Your task to perform on an android device: turn on translation in the chrome app Image 0: 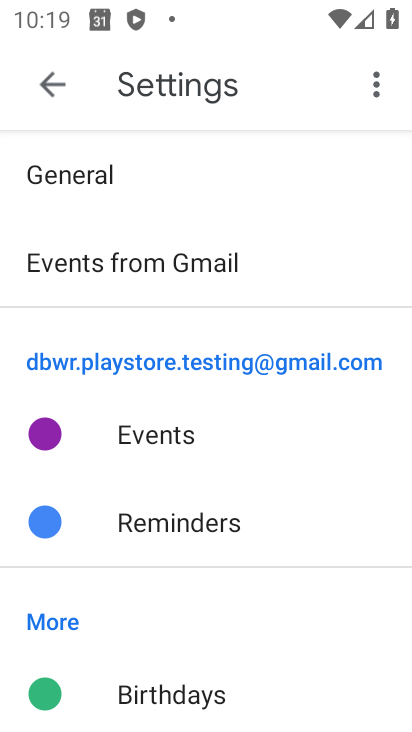
Step 0: press home button
Your task to perform on an android device: turn on translation in the chrome app Image 1: 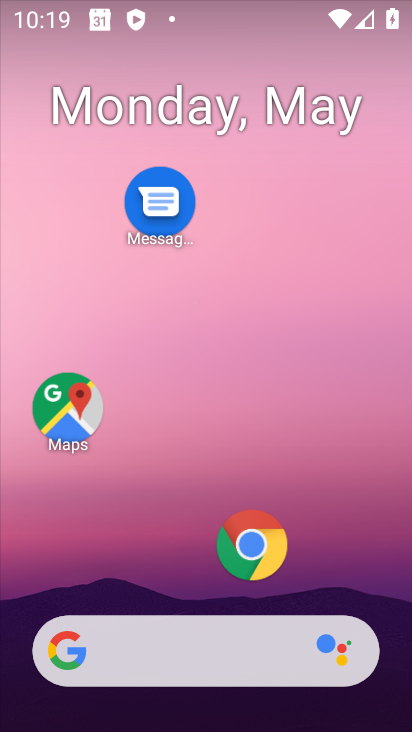
Step 1: click (238, 549)
Your task to perform on an android device: turn on translation in the chrome app Image 2: 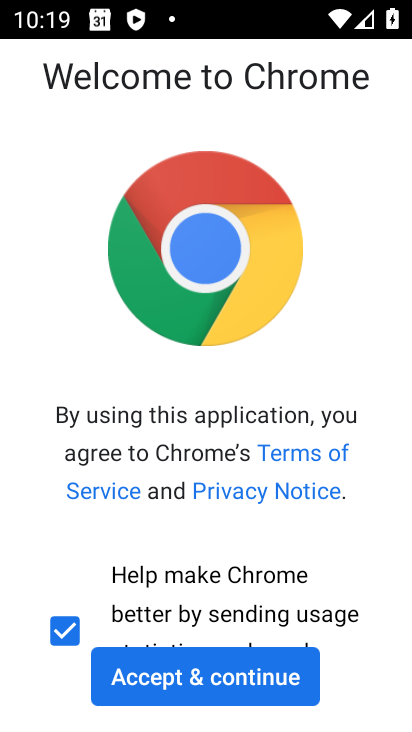
Step 2: click (221, 660)
Your task to perform on an android device: turn on translation in the chrome app Image 3: 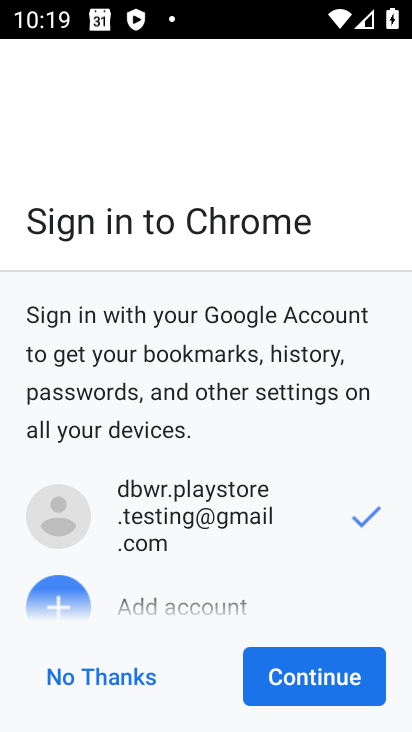
Step 3: click (324, 673)
Your task to perform on an android device: turn on translation in the chrome app Image 4: 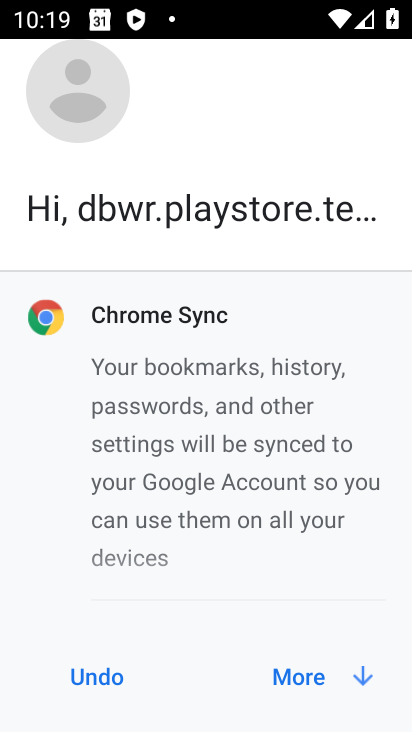
Step 4: click (325, 675)
Your task to perform on an android device: turn on translation in the chrome app Image 5: 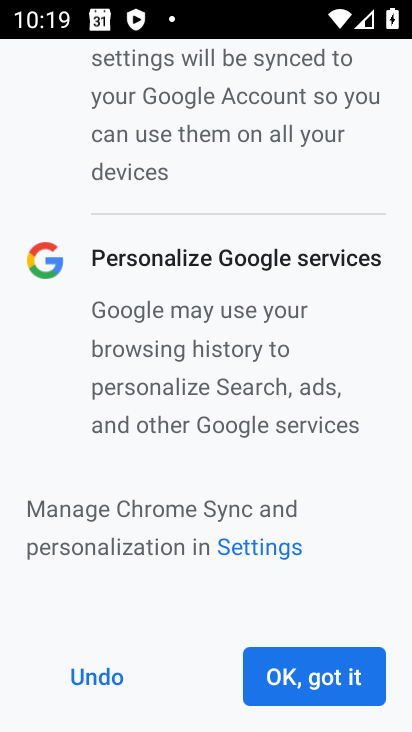
Step 5: click (326, 675)
Your task to perform on an android device: turn on translation in the chrome app Image 6: 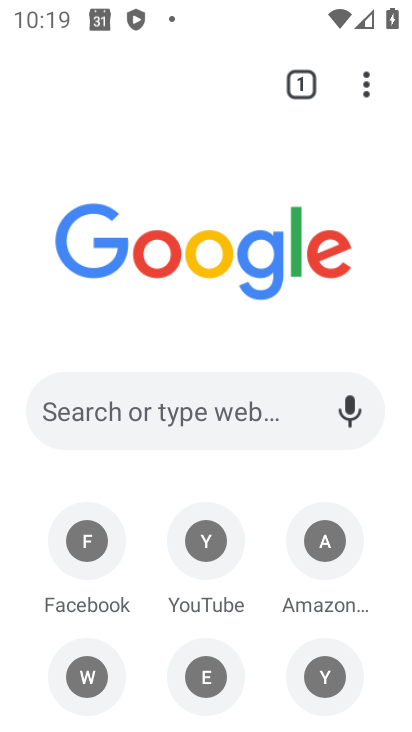
Step 6: click (360, 94)
Your task to perform on an android device: turn on translation in the chrome app Image 7: 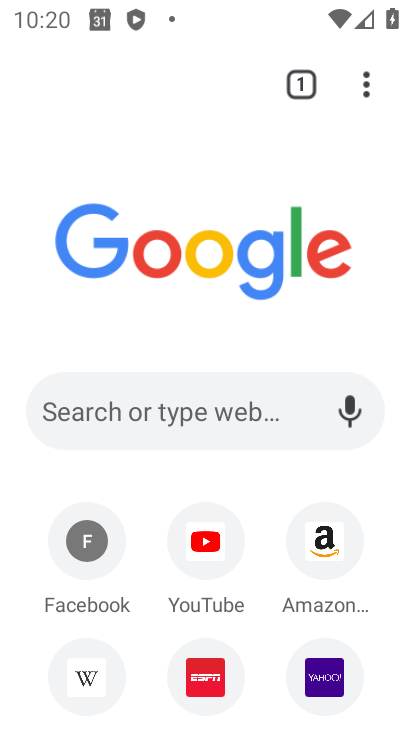
Step 7: click (360, 95)
Your task to perform on an android device: turn on translation in the chrome app Image 8: 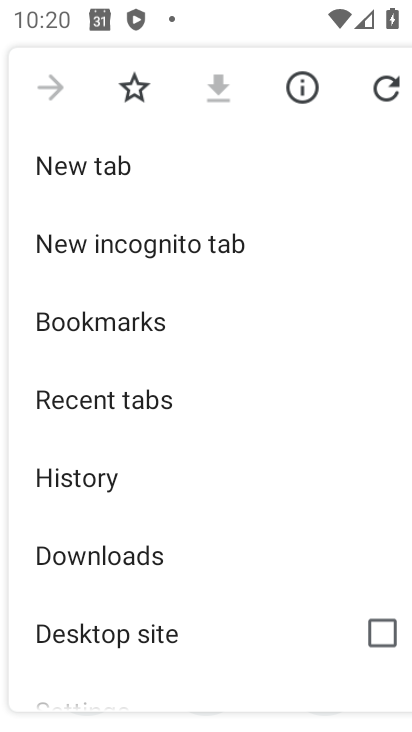
Step 8: drag from (69, 568) to (16, 206)
Your task to perform on an android device: turn on translation in the chrome app Image 9: 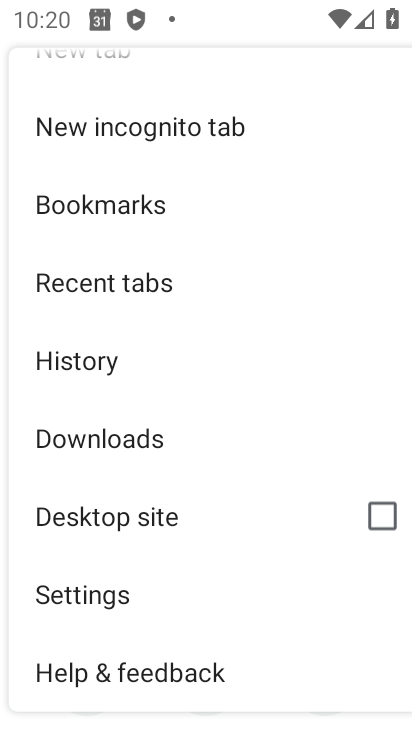
Step 9: click (90, 580)
Your task to perform on an android device: turn on translation in the chrome app Image 10: 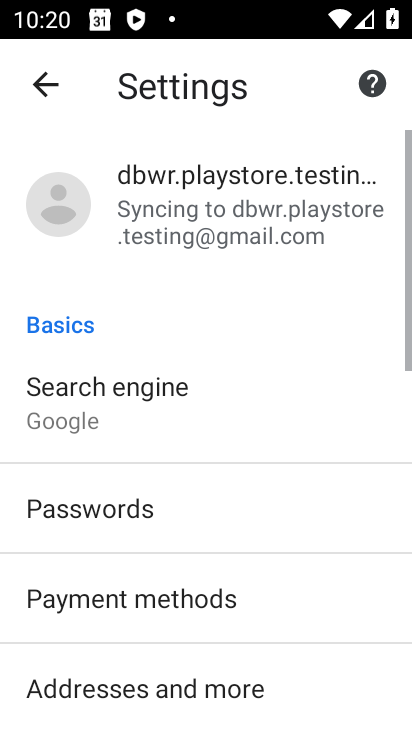
Step 10: drag from (184, 641) to (185, 260)
Your task to perform on an android device: turn on translation in the chrome app Image 11: 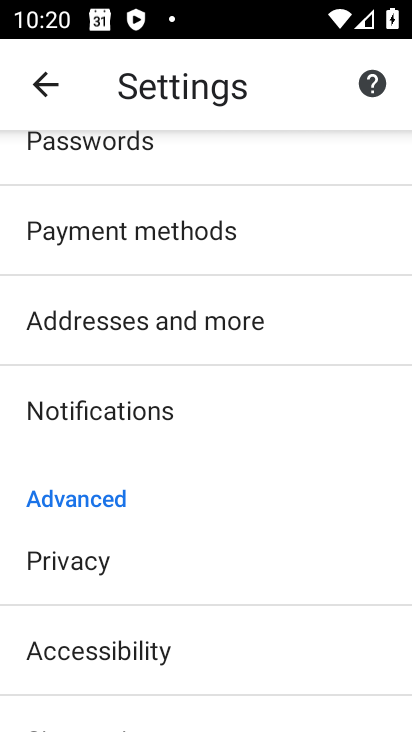
Step 11: drag from (191, 630) to (201, 211)
Your task to perform on an android device: turn on translation in the chrome app Image 12: 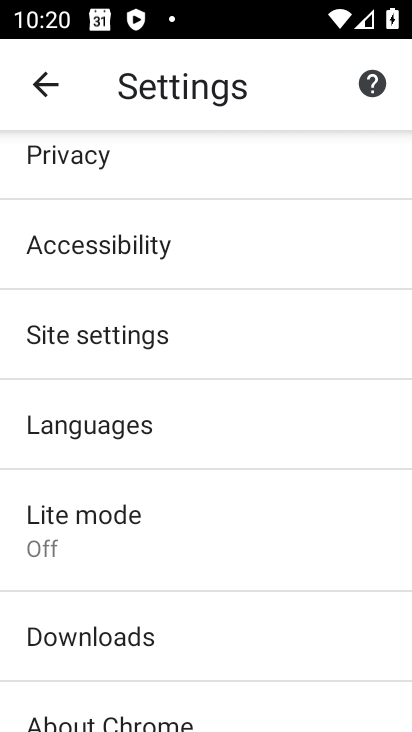
Step 12: click (120, 427)
Your task to perform on an android device: turn on translation in the chrome app Image 13: 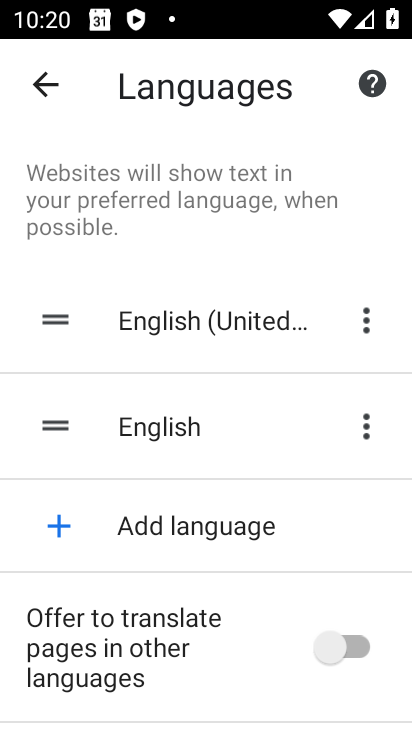
Step 13: click (361, 645)
Your task to perform on an android device: turn on translation in the chrome app Image 14: 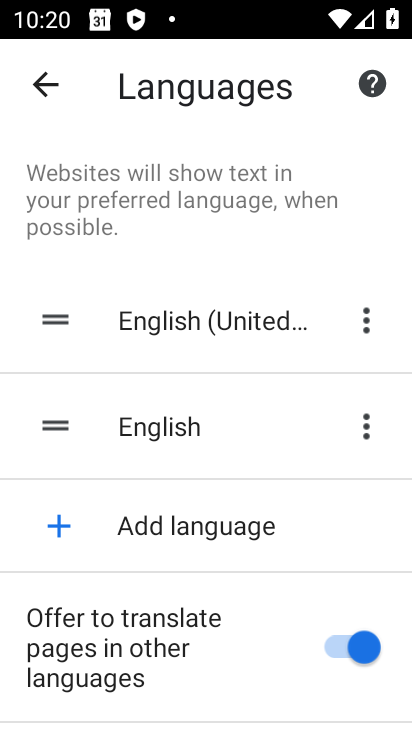
Step 14: task complete